Your task to perform on an android device: Search for vegetarian restaurants on Maps Image 0: 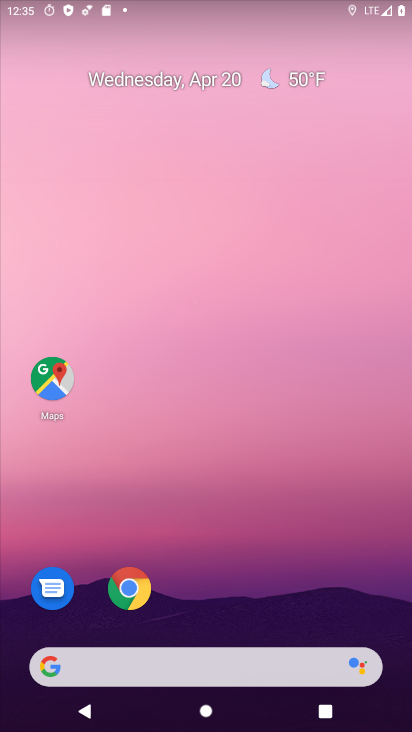
Step 0: drag from (209, 649) to (142, 44)
Your task to perform on an android device: Search for vegetarian restaurants on Maps Image 1: 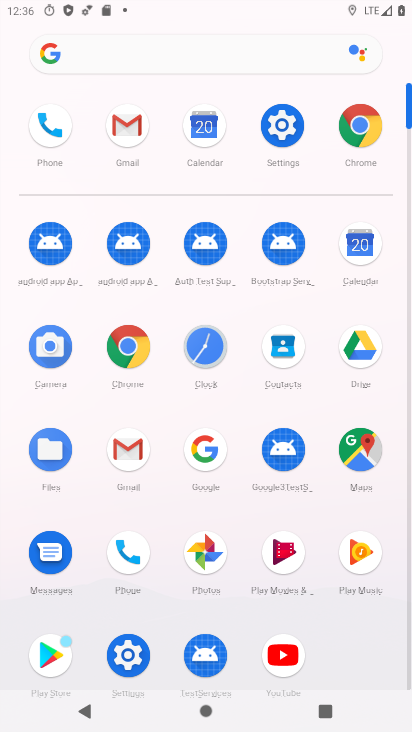
Step 1: click (366, 453)
Your task to perform on an android device: Search for vegetarian restaurants on Maps Image 2: 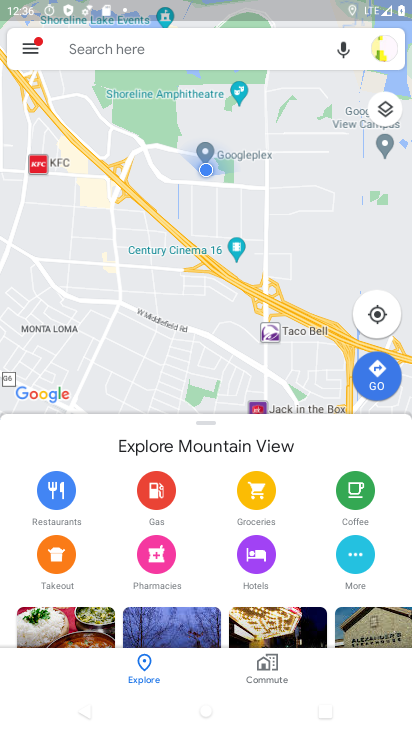
Step 2: click (150, 44)
Your task to perform on an android device: Search for vegetarian restaurants on Maps Image 3: 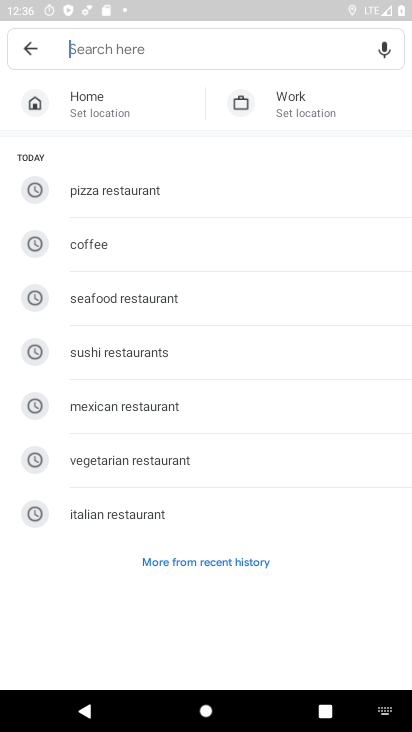
Step 3: click (119, 460)
Your task to perform on an android device: Search for vegetarian restaurants on Maps Image 4: 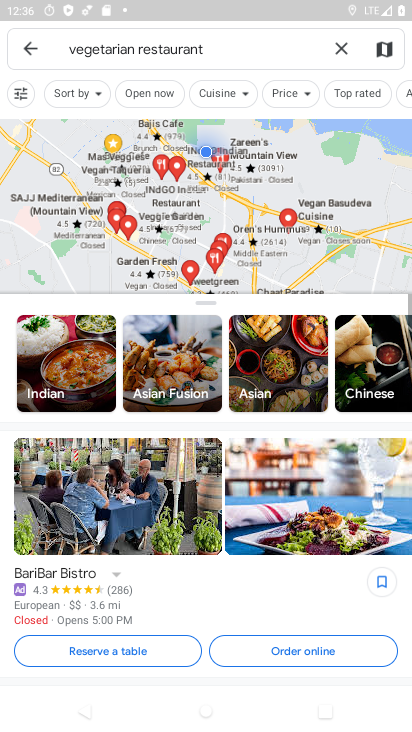
Step 4: task complete